Your task to perform on an android device: What's on my calendar today? Image 0: 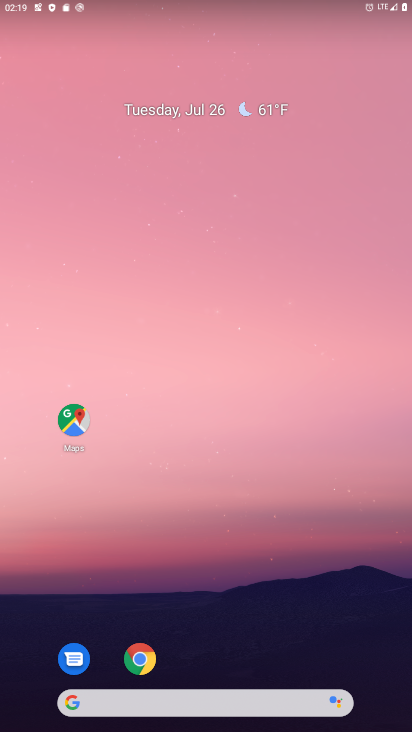
Step 0: drag from (242, 640) to (190, 63)
Your task to perform on an android device: What's on my calendar today? Image 1: 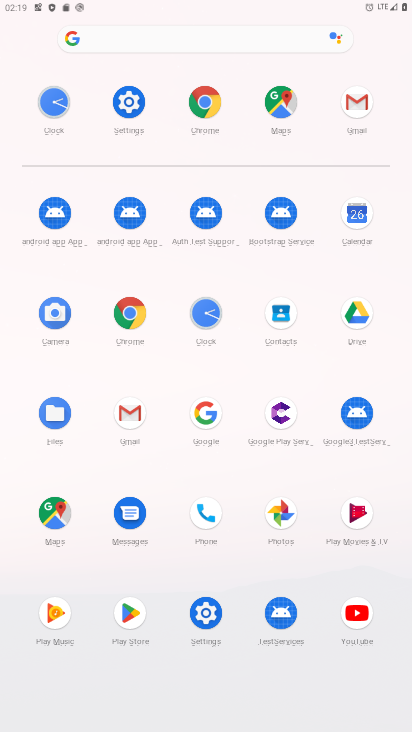
Step 1: click (354, 219)
Your task to perform on an android device: What's on my calendar today? Image 2: 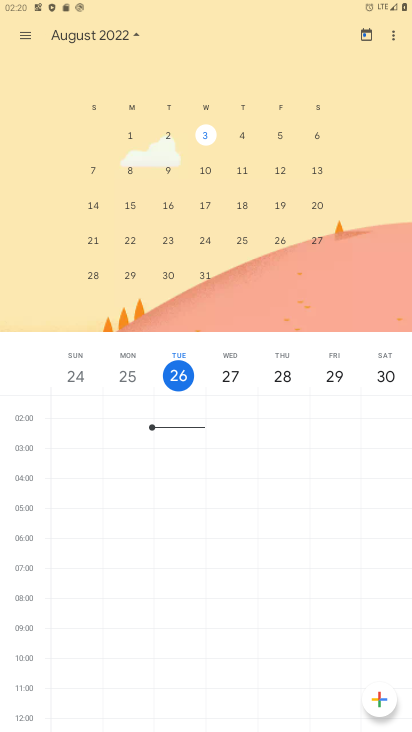
Step 2: click (186, 377)
Your task to perform on an android device: What's on my calendar today? Image 3: 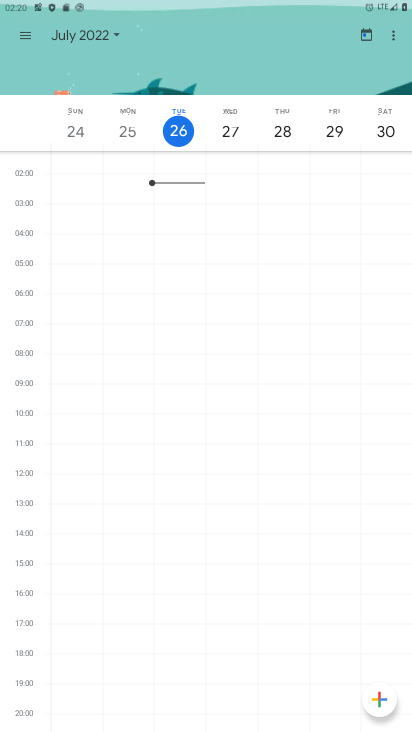
Step 3: task complete